Your task to perform on an android device: Show me productivity apps on the Play Store Image 0: 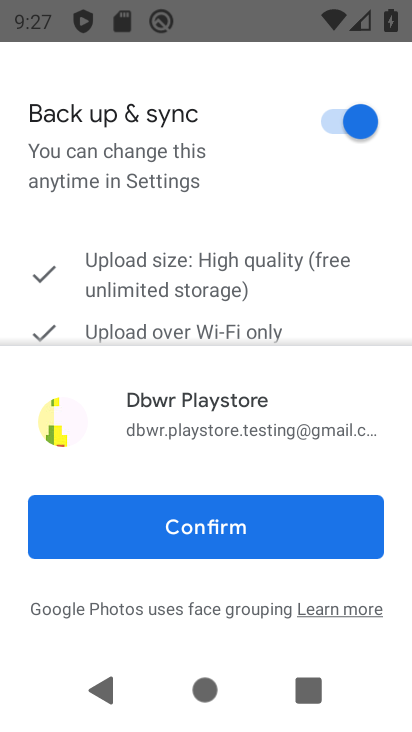
Step 0: press home button
Your task to perform on an android device: Show me productivity apps on the Play Store Image 1: 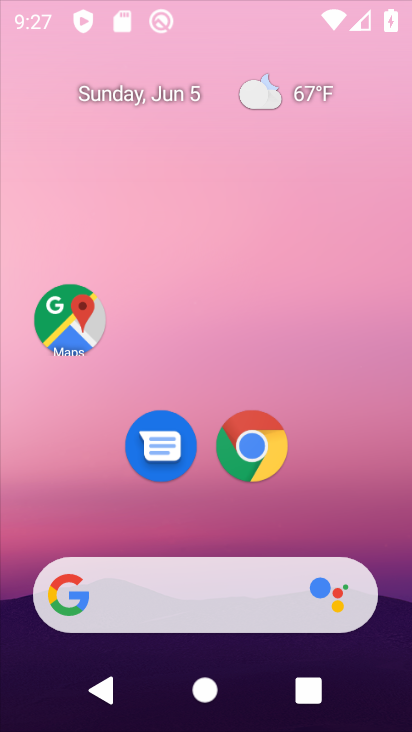
Step 1: press home button
Your task to perform on an android device: Show me productivity apps on the Play Store Image 2: 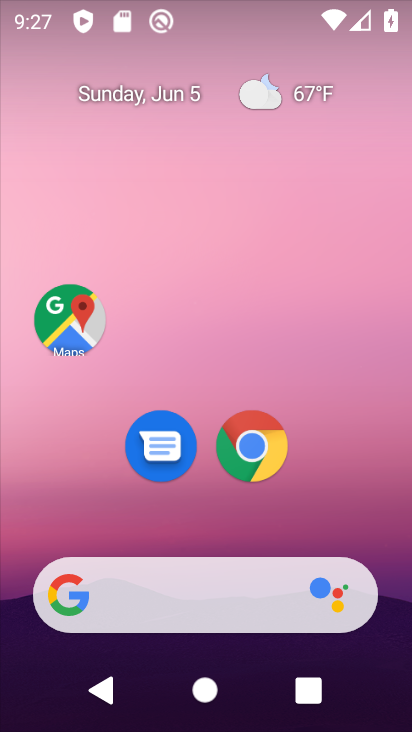
Step 2: drag from (206, 536) to (215, 212)
Your task to perform on an android device: Show me productivity apps on the Play Store Image 3: 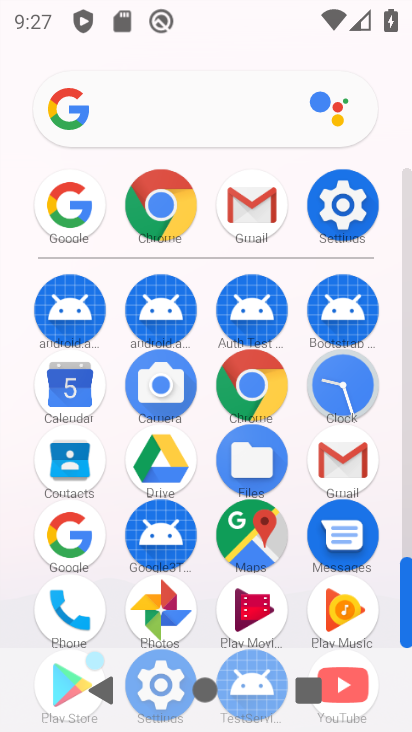
Step 3: drag from (100, 600) to (105, 371)
Your task to perform on an android device: Show me productivity apps on the Play Store Image 4: 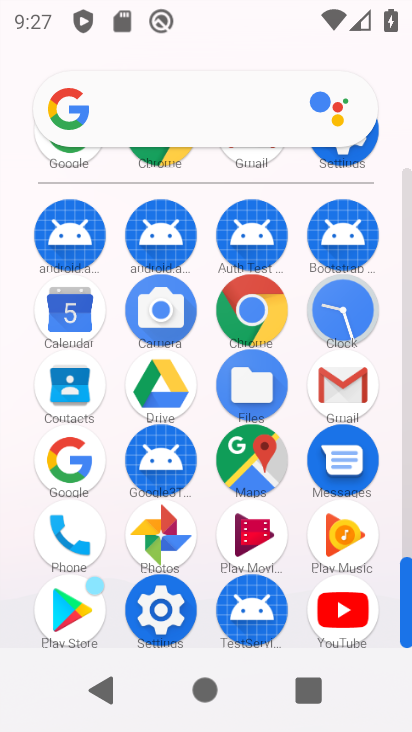
Step 4: click (63, 574)
Your task to perform on an android device: Show me productivity apps on the Play Store Image 5: 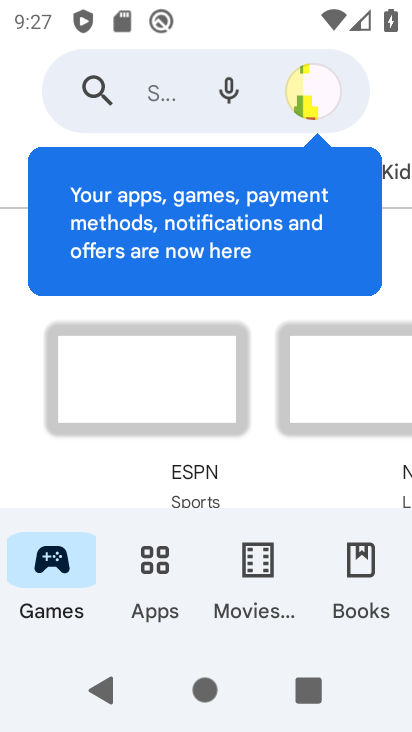
Step 5: click (146, 583)
Your task to perform on an android device: Show me productivity apps on the Play Store Image 6: 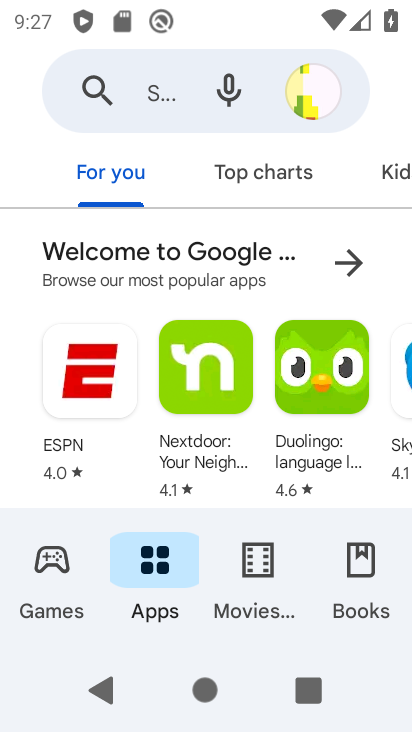
Step 6: drag from (384, 179) to (166, 166)
Your task to perform on an android device: Show me productivity apps on the Play Store Image 7: 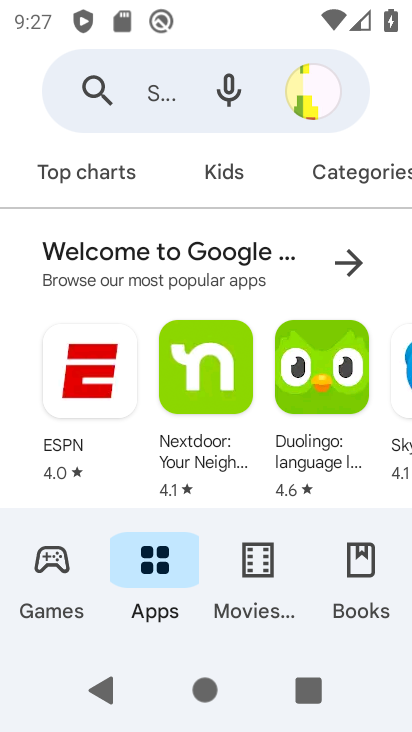
Step 7: click (352, 173)
Your task to perform on an android device: Show me productivity apps on the Play Store Image 8: 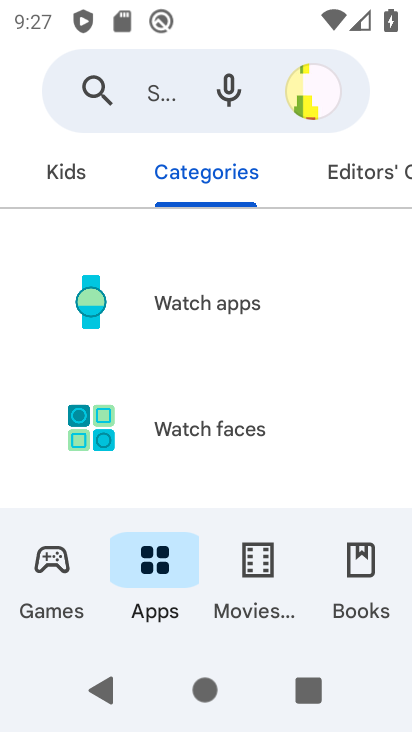
Step 8: drag from (264, 428) to (284, 243)
Your task to perform on an android device: Show me productivity apps on the Play Store Image 9: 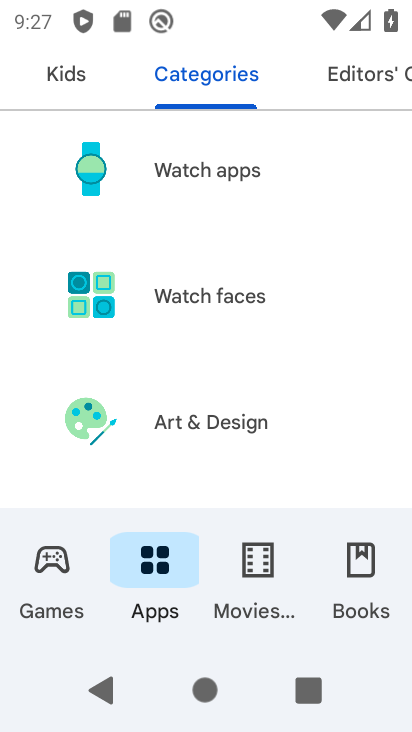
Step 9: drag from (270, 446) to (298, 208)
Your task to perform on an android device: Show me productivity apps on the Play Store Image 10: 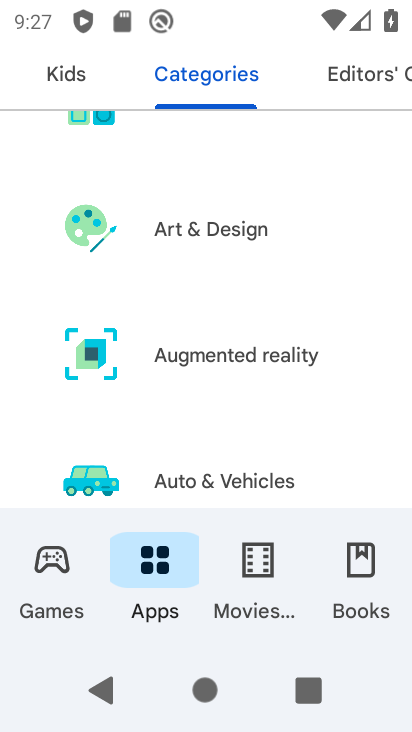
Step 10: drag from (268, 437) to (286, 218)
Your task to perform on an android device: Show me productivity apps on the Play Store Image 11: 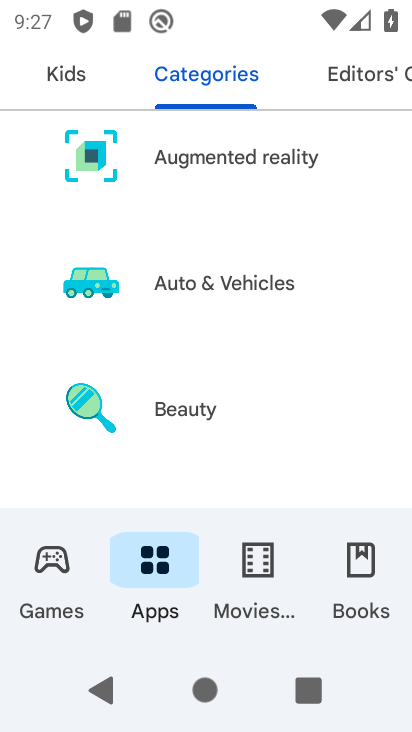
Step 11: drag from (257, 454) to (282, 236)
Your task to perform on an android device: Show me productivity apps on the Play Store Image 12: 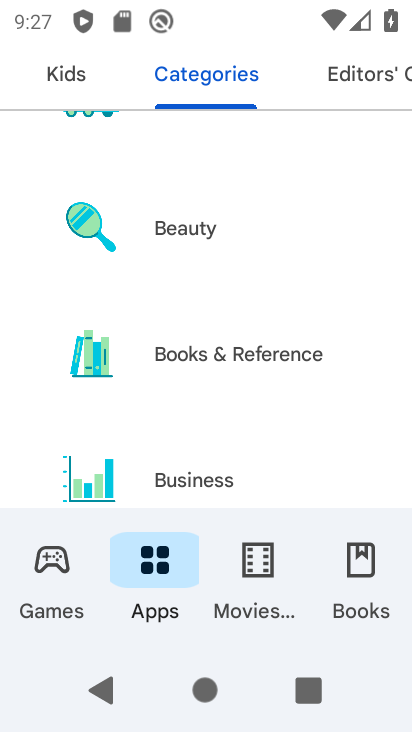
Step 12: drag from (260, 429) to (280, 231)
Your task to perform on an android device: Show me productivity apps on the Play Store Image 13: 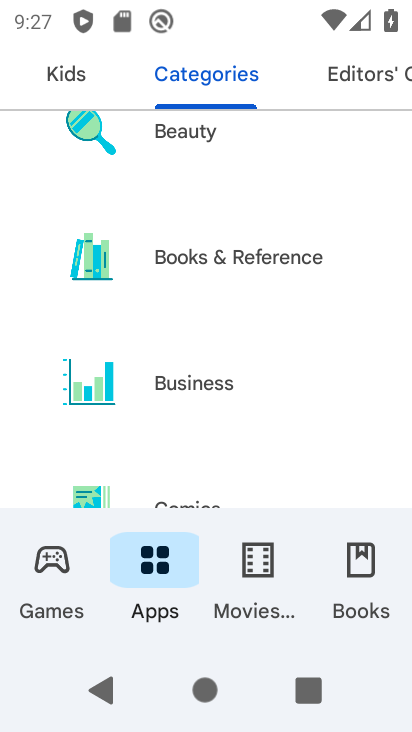
Step 13: drag from (237, 463) to (271, 265)
Your task to perform on an android device: Show me productivity apps on the Play Store Image 14: 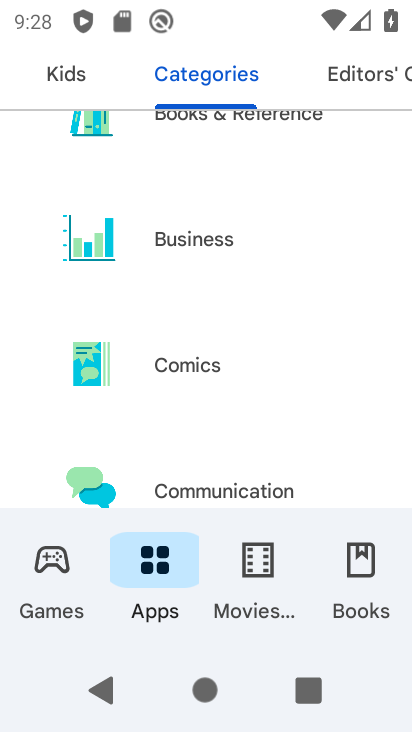
Step 14: drag from (278, 414) to (291, 131)
Your task to perform on an android device: Show me productivity apps on the Play Store Image 15: 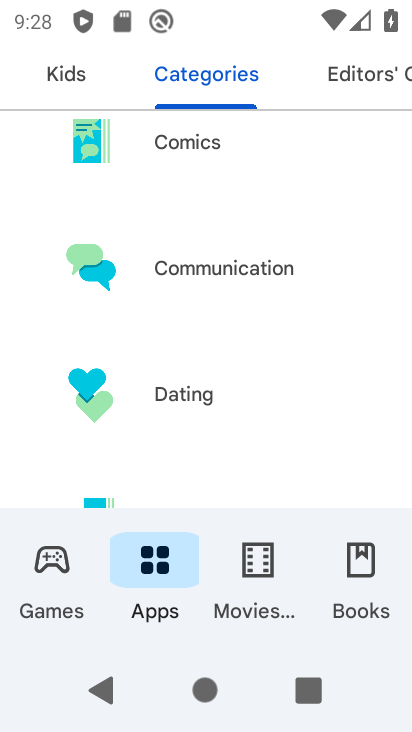
Step 15: drag from (278, 389) to (290, 164)
Your task to perform on an android device: Show me productivity apps on the Play Store Image 16: 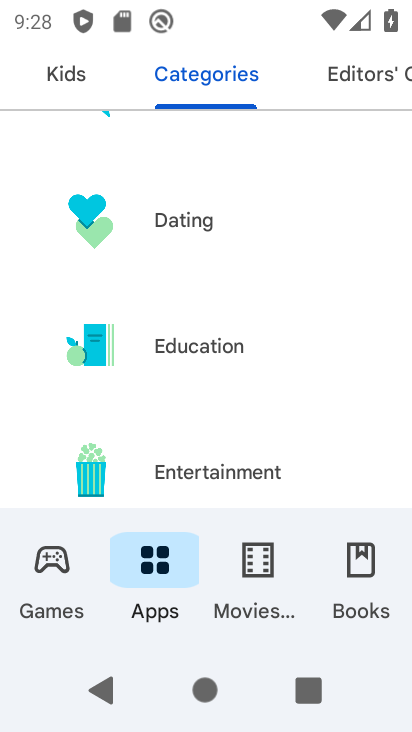
Step 16: drag from (277, 391) to (293, 177)
Your task to perform on an android device: Show me productivity apps on the Play Store Image 17: 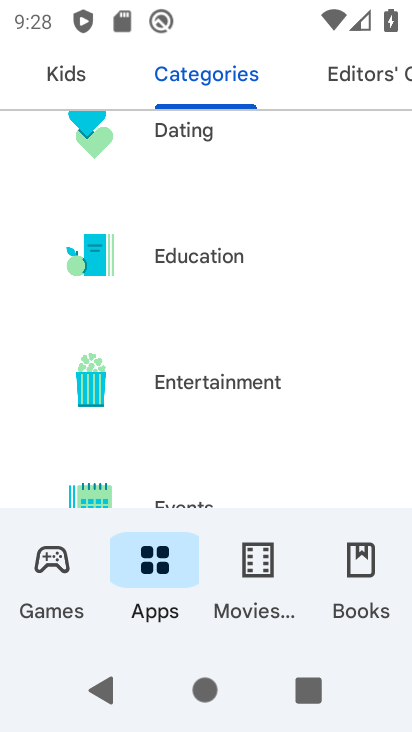
Step 17: drag from (271, 418) to (303, 246)
Your task to perform on an android device: Show me productivity apps on the Play Store Image 18: 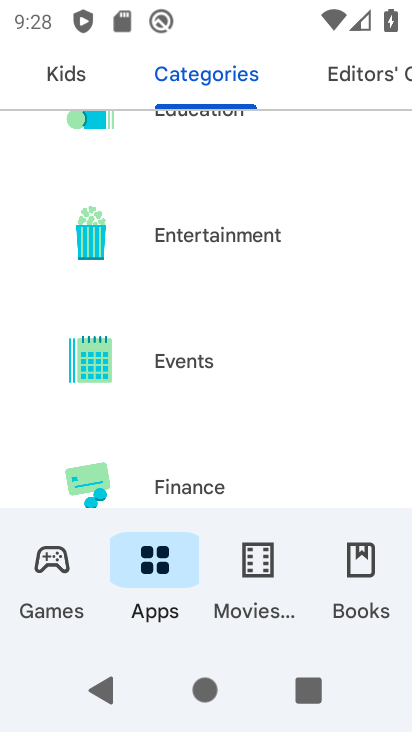
Step 18: drag from (268, 383) to (296, 177)
Your task to perform on an android device: Show me productivity apps on the Play Store Image 19: 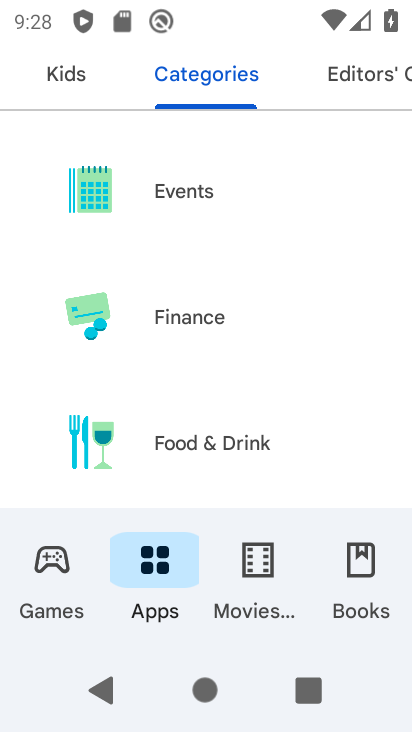
Step 19: drag from (278, 475) to (320, 217)
Your task to perform on an android device: Show me productivity apps on the Play Store Image 20: 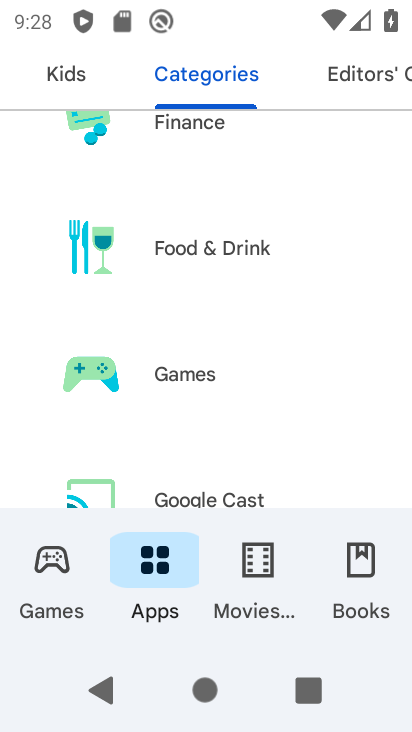
Step 20: drag from (247, 443) to (274, 267)
Your task to perform on an android device: Show me productivity apps on the Play Store Image 21: 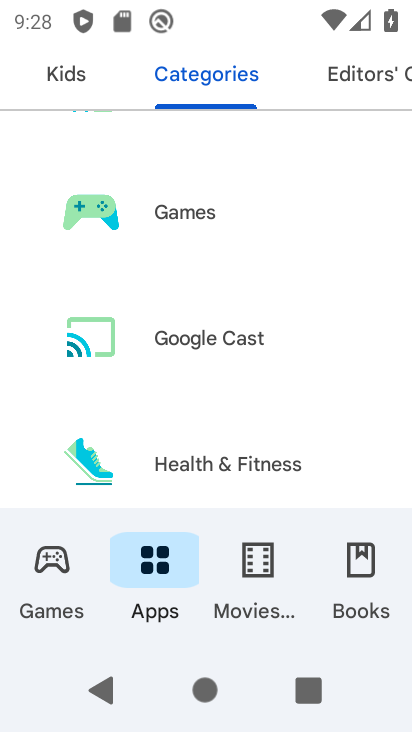
Step 21: drag from (250, 438) to (267, 241)
Your task to perform on an android device: Show me productivity apps on the Play Store Image 22: 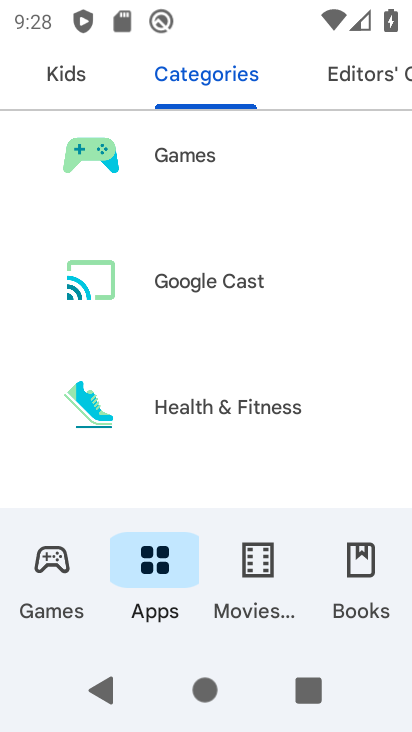
Step 22: drag from (248, 459) to (260, 185)
Your task to perform on an android device: Show me productivity apps on the Play Store Image 23: 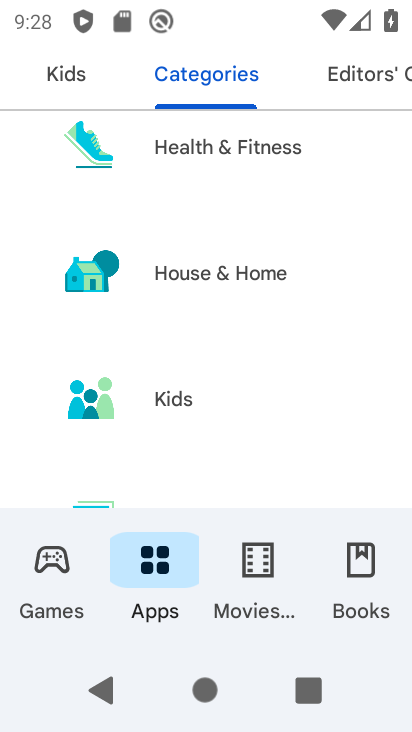
Step 23: drag from (232, 447) to (274, 217)
Your task to perform on an android device: Show me productivity apps on the Play Store Image 24: 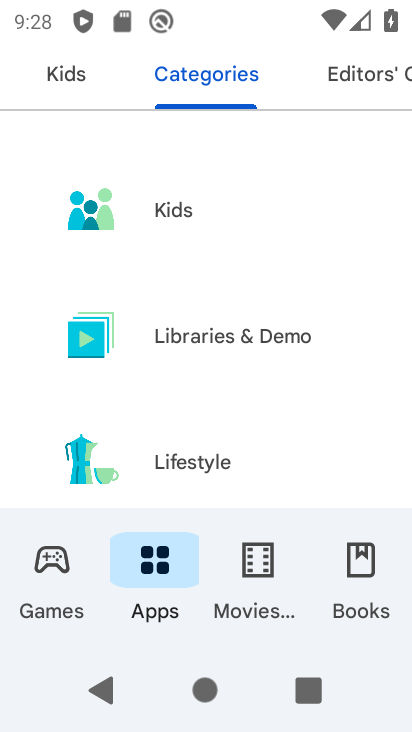
Step 24: drag from (258, 451) to (278, 210)
Your task to perform on an android device: Show me productivity apps on the Play Store Image 25: 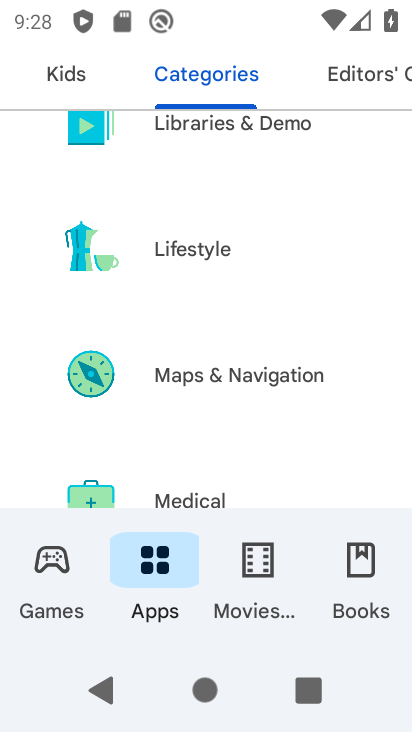
Step 25: drag from (228, 449) to (256, 263)
Your task to perform on an android device: Show me productivity apps on the Play Store Image 26: 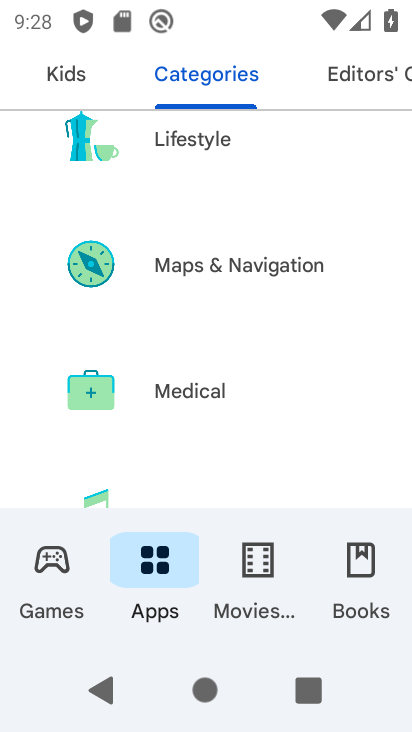
Step 26: drag from (238, 456) to (275, 166)
Your task to perform on an android device: Show me productivity apps on the Play Store Image 27: 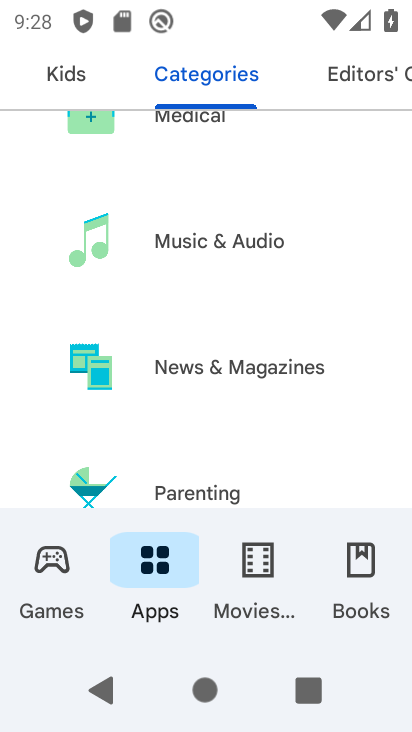
Step 27: drag from (283, 407) to (293, 207)
Your task to perform on an android device: Show me productivity apps on the Play Store Image 28: 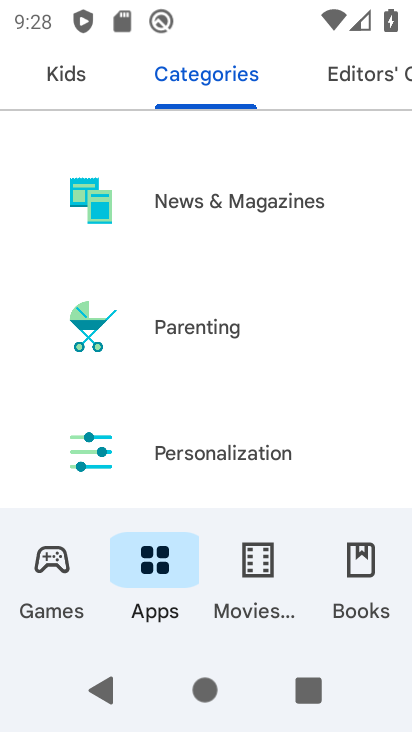
Step 28: drag from (285, 483) to (295, 262)
Your task to perform on an android device: Show me productivity apps on the Play Store Image 29: 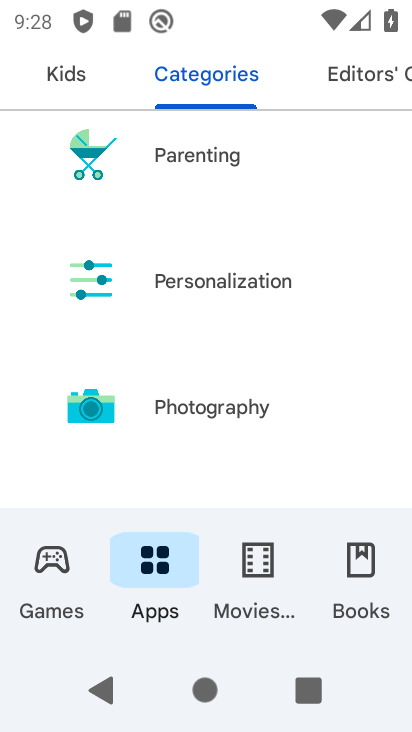
Step 29: drag from (279, 415) to (290, 212)
Your task to perform on an android device: Show me productivity apps on the Play Store Image 30: 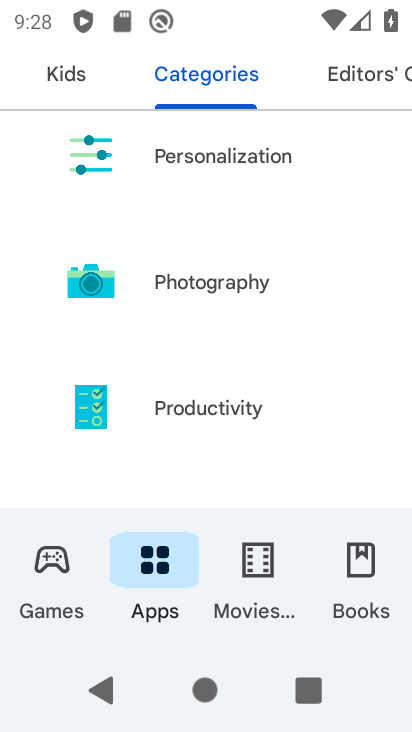
Step 30: click (262, 413)
Your task to perform on an android device: Show me productivity apps on the Play Store Image 31: 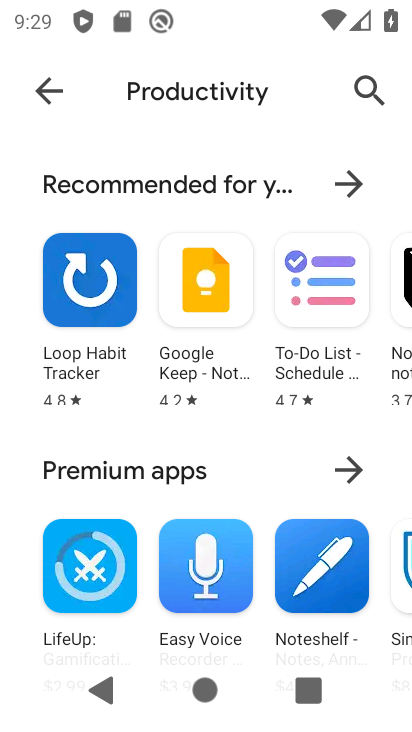
Step 31: task complete